Your task to perform on an android device: visit the assistant section in the google photos Image 0: 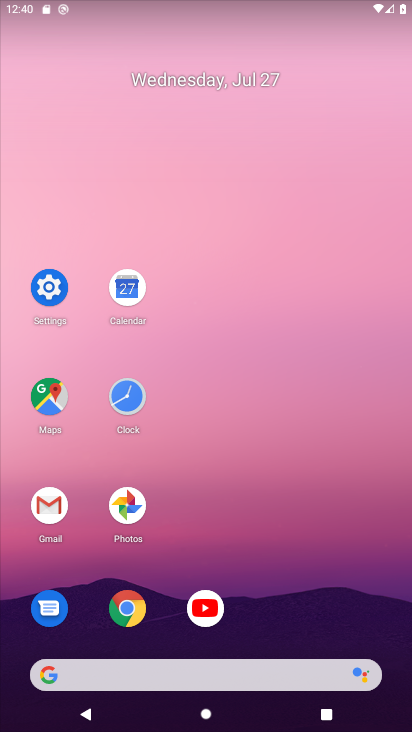
Step 0: click (125, 506)
Your task to perform on an android device: visit the assistant section in the google photos Image 1: 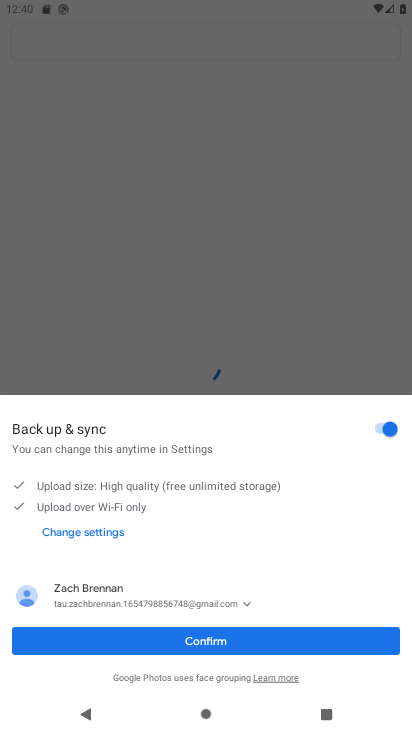
Step 1: click (260, 668)
Your task to perform on an android device: visit the assistant section in the google photos Image 2: 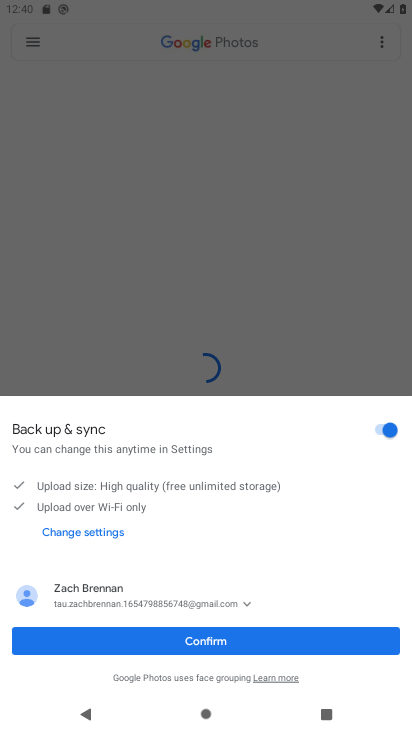
Step 2: click (229, 644)
Your task to perform on an android device: visit the assistant section in the google photos Image 3: 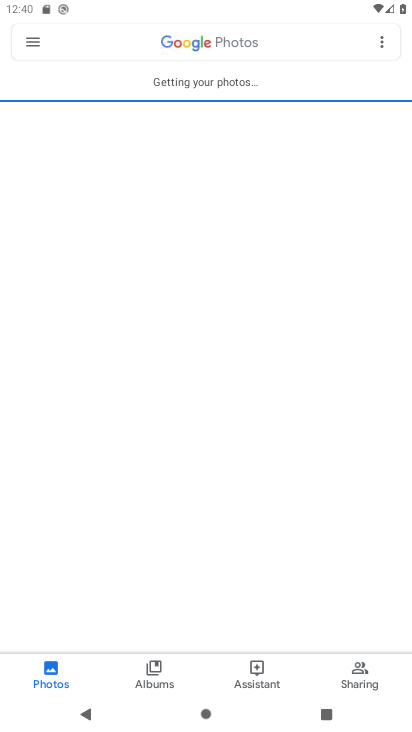
Step 3: click (248, 665)
Your task to perform on an android device: visit the assistant section in the google photos Image 4: 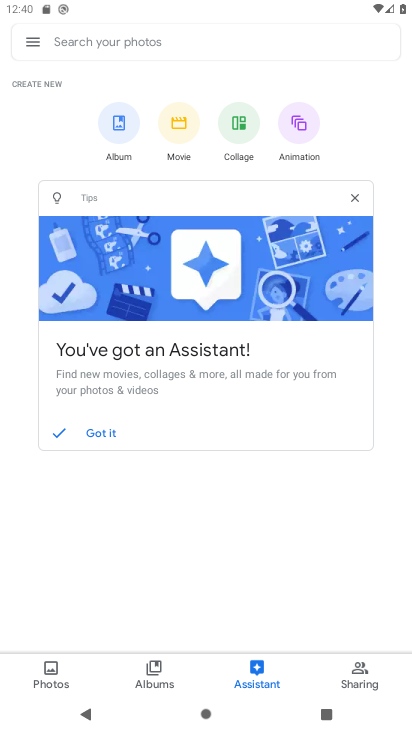
Step 4: task complete